Your task to perform on an android device: Open wifi settings Image 0: 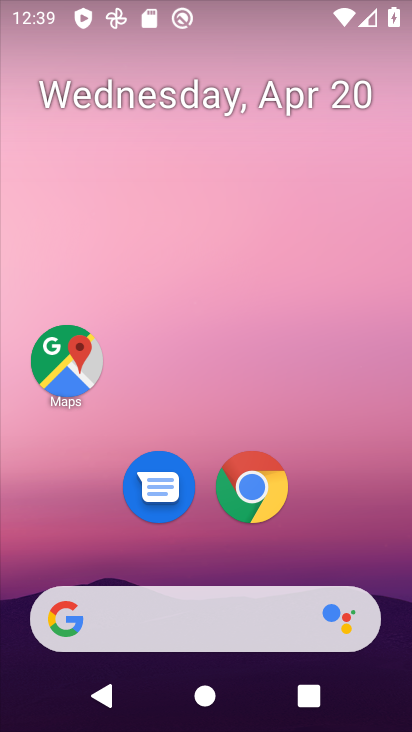
Step 0: drag from (376, 573) to (286, 46)
Your task to perform on an android device: Open wifi settings Image 1: 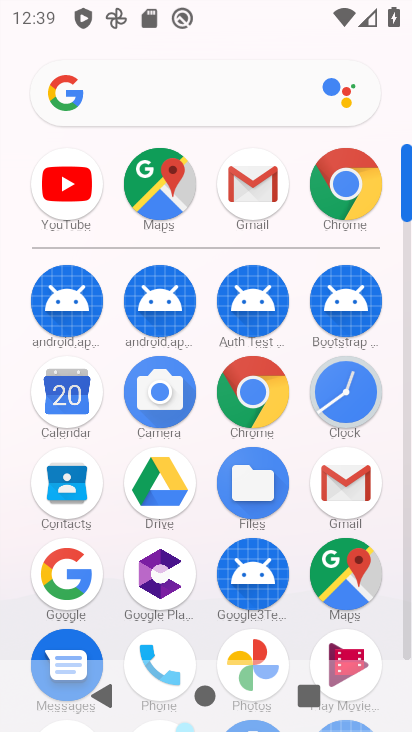
Step 1: click (407, 657)
Your task to perform on an android device: Open wifi settings Image 2: 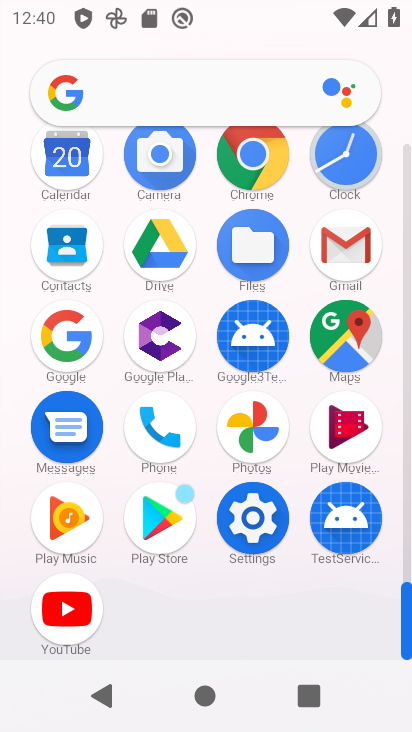
Step 2: click (256, 538)
Your task to perform on an android device: Open wifi settings Image 3: 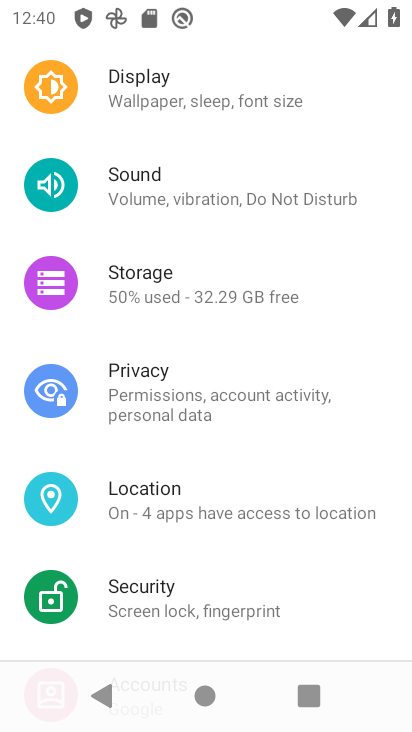
Step 3: drag from (166, 153) to (224, 601)
Your task to perform on an android device: Open wifi settings Image 4: 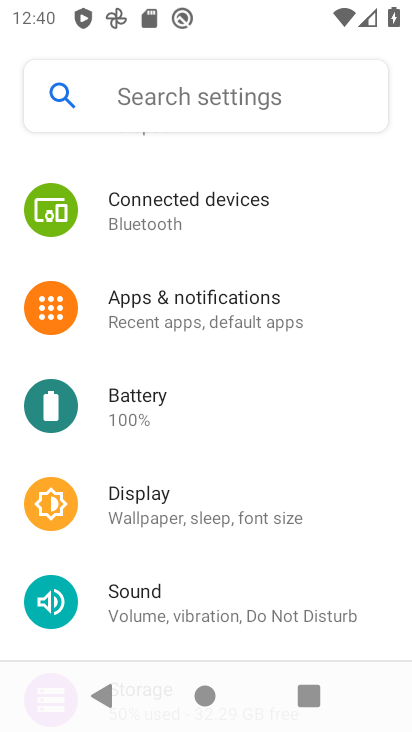
Step 4: drag from (181, 196) to (224, 605)
Your task to perform on an android device: Open wifi settings Image 5: 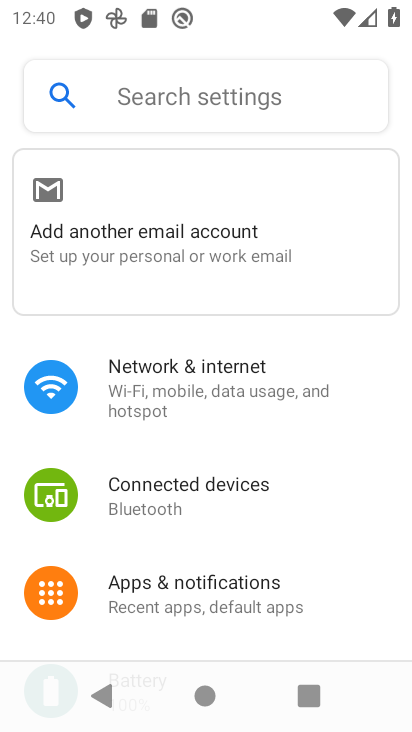
Step 5: click (191, 406)
Your task to perform on an android device: Open wifi settings Image 6: 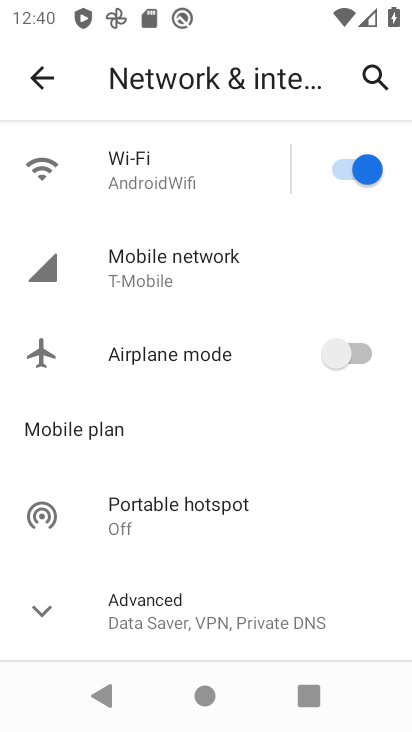
Step 6: click (141, 168)
Your task to perform on an android device: Open wifi settings Image 7: 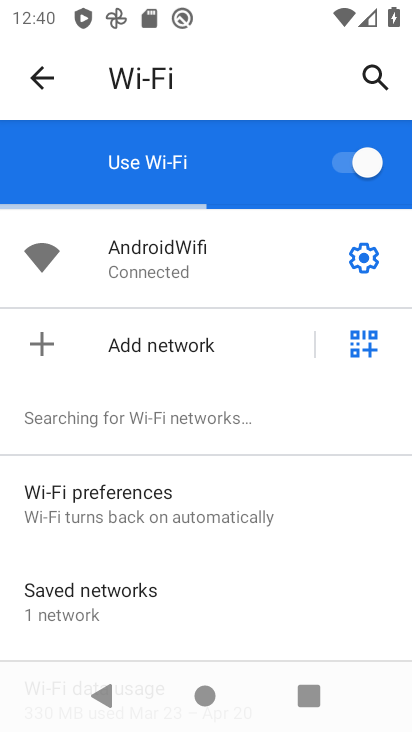
Step 7: task complete